Your task to perform on an android device: turn on location history Image 0: 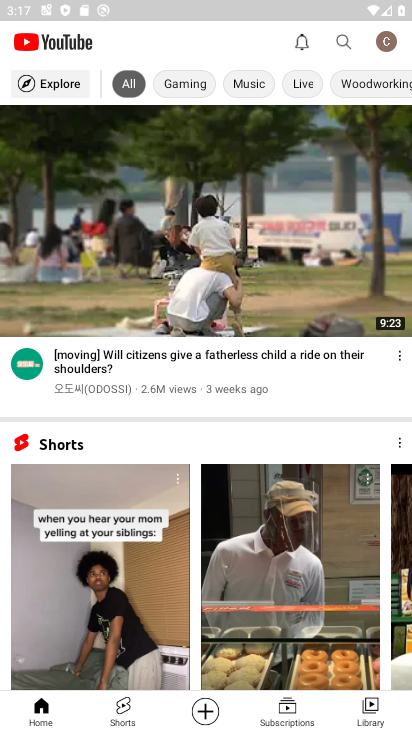
Step 0: press home button
Your task to perform on an android device: turn on location history Image 1: 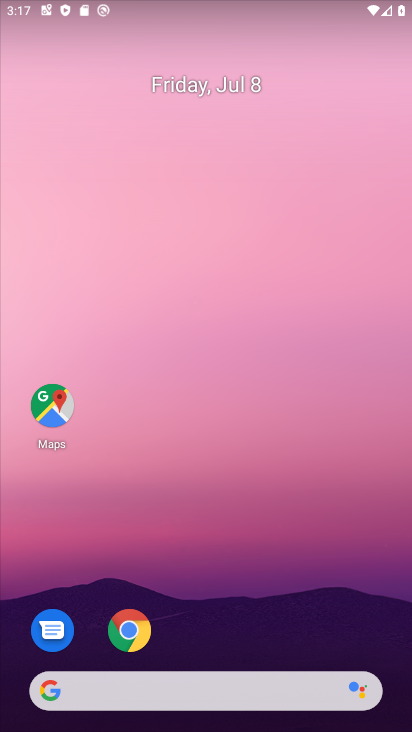
Step 1: drag from (279, 622) to (268, 332)
Your task to perform on an android device: turn on location history Image 2: 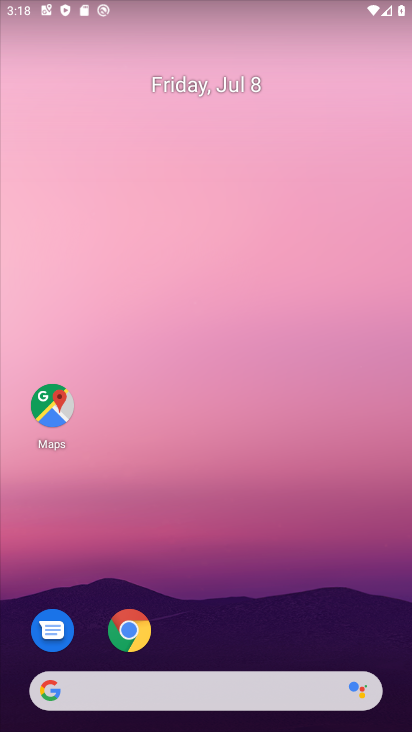
Step 2: drag from (260, 651) to (205, 441)
Your task to perform on an android device: turn on location history Image 3: 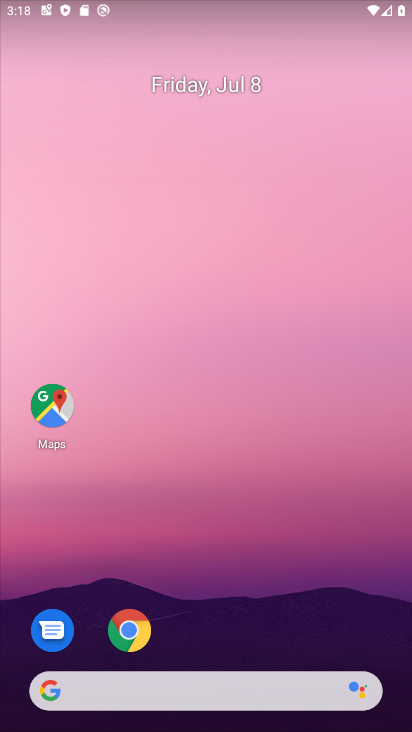
Step 3: drag from (262, 649) to (174, 123)
Your task to perform on an android device: turn on location history Image 4: 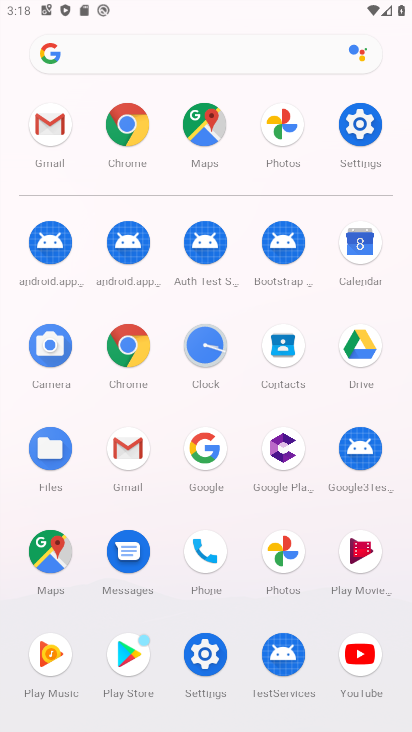
Step 4: click (348, 141)
Your task to perform on an android device: turn on location history Image 5: 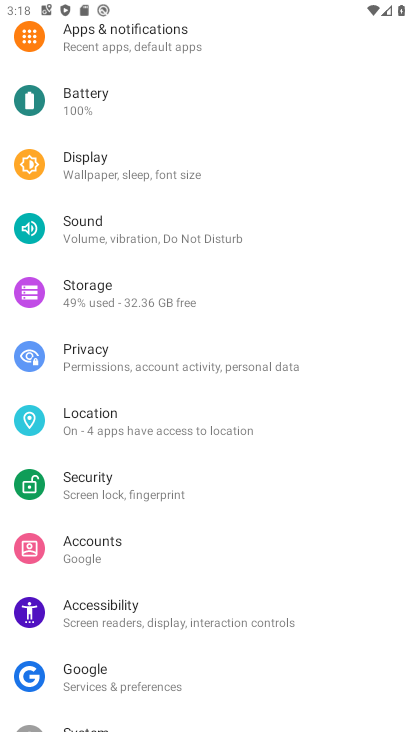
Step 5: click (184, 406)
Your task to perform on an android device: turn on location history Image 6: 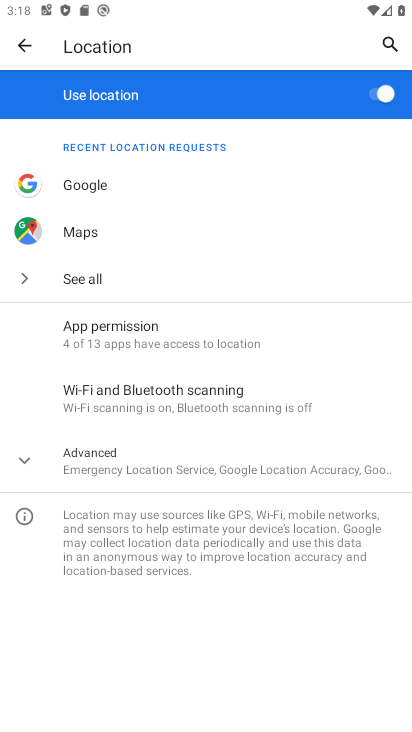
Step 6: click (182, 447)
Your task to perform on an android device: turn on location history Image 7: 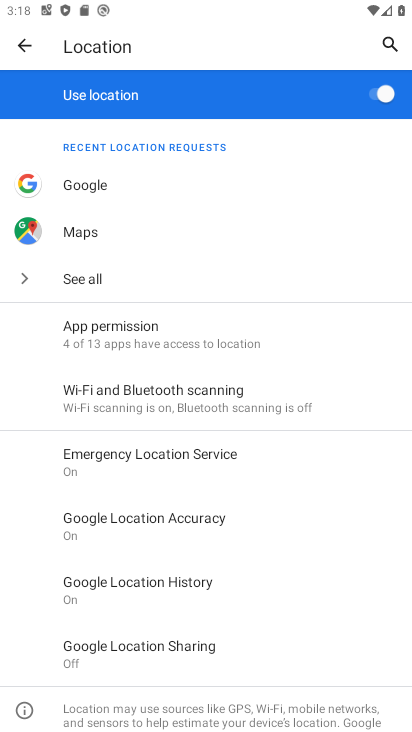
Step 7: click (132, 567)
Your task to perform on an android device: turn on location history Image 8: 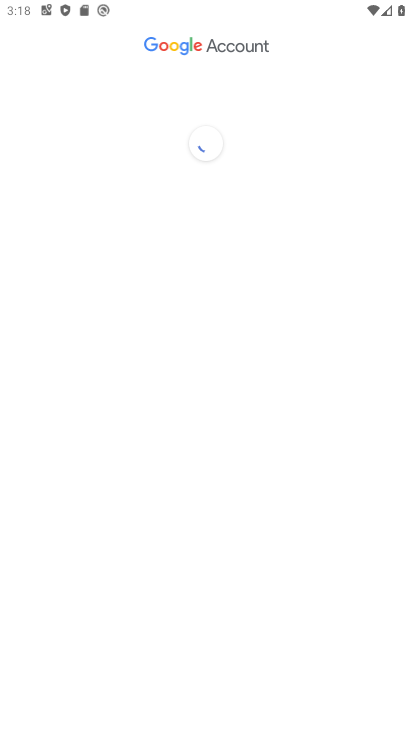
Step 8: task complete